Your task to perform on an android device: snooze an email in the gmail app Image 0: 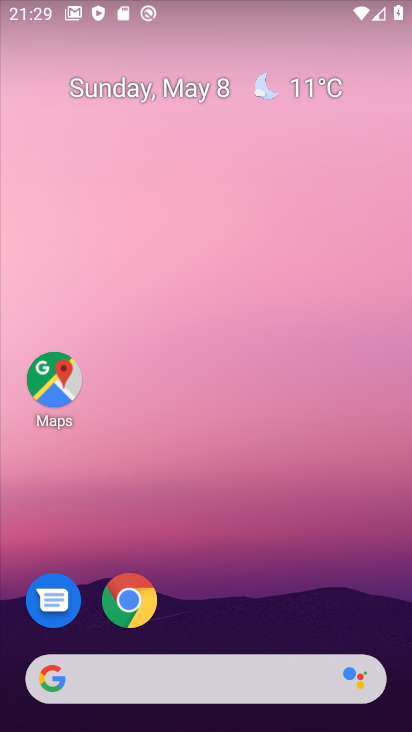
Step 0: drag from (172, 614) to (169, 203)
Your task to perform on an android device: snooze an email in the gmail app Image 1: 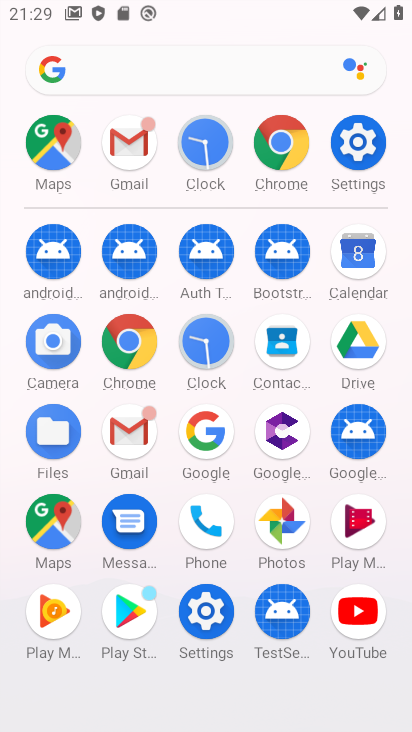
Step 1: click (128, 134)
Your task to perform on an android device: snooze an email in the gmail app Image 2: 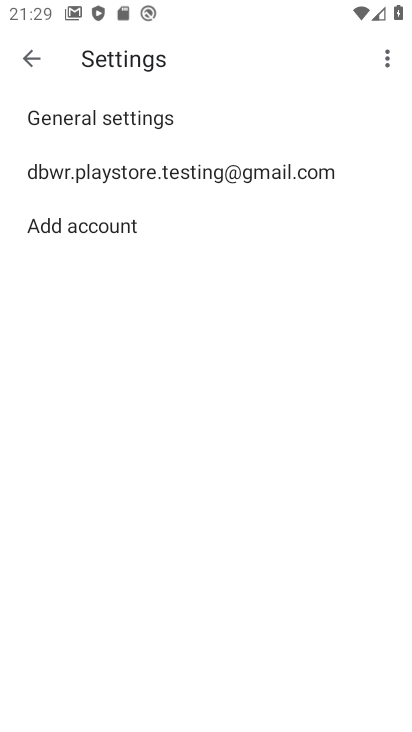
Step 2: click (41, 67)
Your task to perform on an android device: snooze an email in the gmail app Image 3: 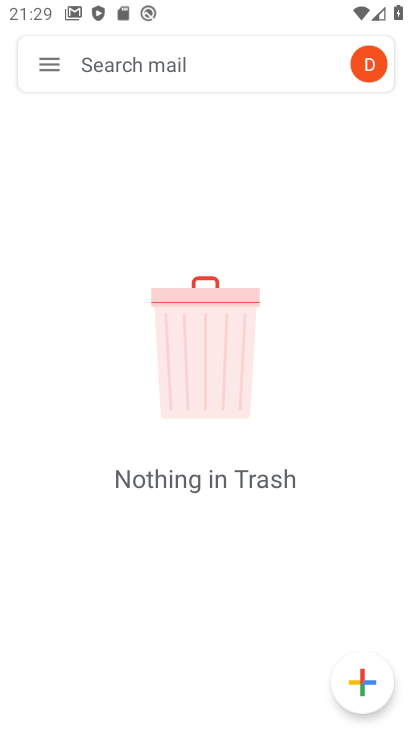
Step 3: click (41, 67)
Your task to perform on an android device: snooze an email in the gmail app Image 4: 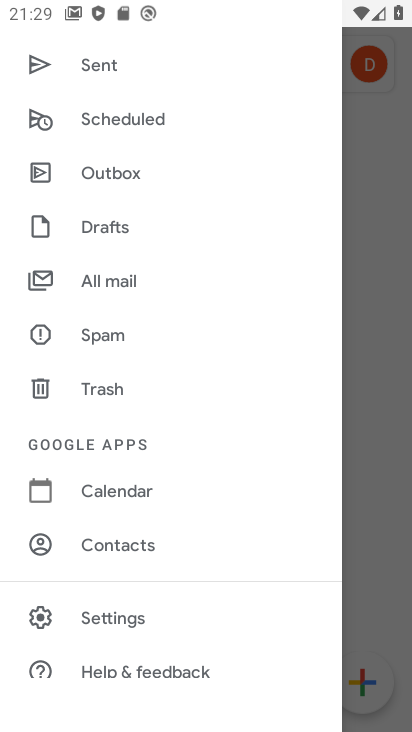
Step 4: click (144, 288)
Your task to perform on an android device: snooze an email in the gmail app Image 5: 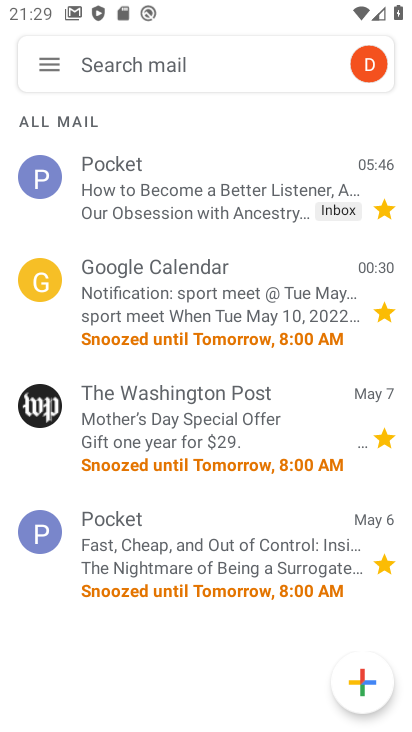
Step 5: click (36, 185)
Your task to perform on an android device: snooze an email in the gmail app Image 6: 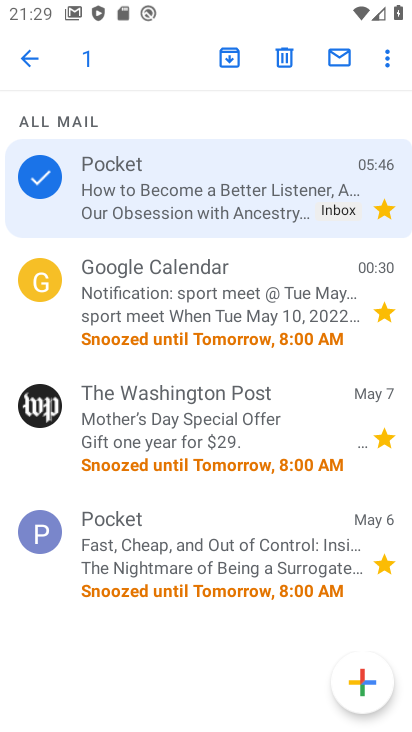
Step 6: click (377, 56)
Your task to perform on an android device: snooze an email in the gmail app Image 7: 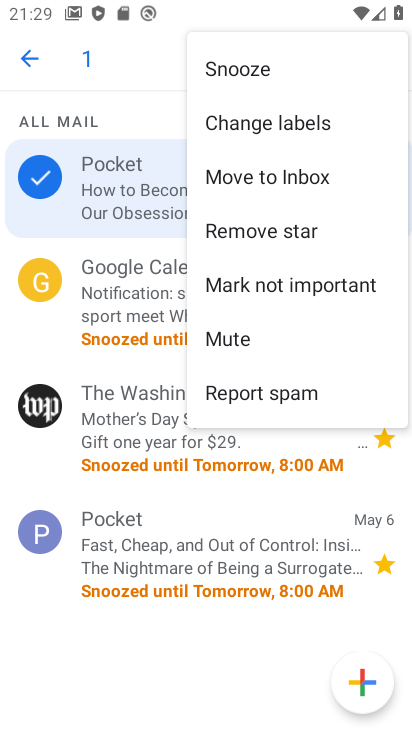
Step 7: click (250, 71)
Your task to perform on an android device: snooze an email in the gmail app Image 8: 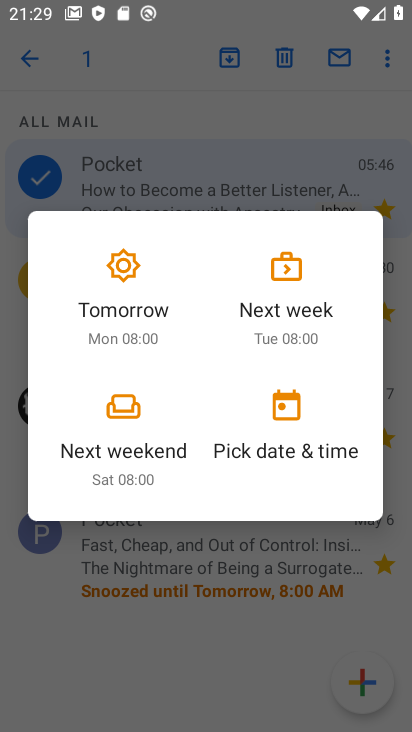
Step 8: click (288, 321)
Your task to perform on an android device: snooze an email in the gmail app Image 9: 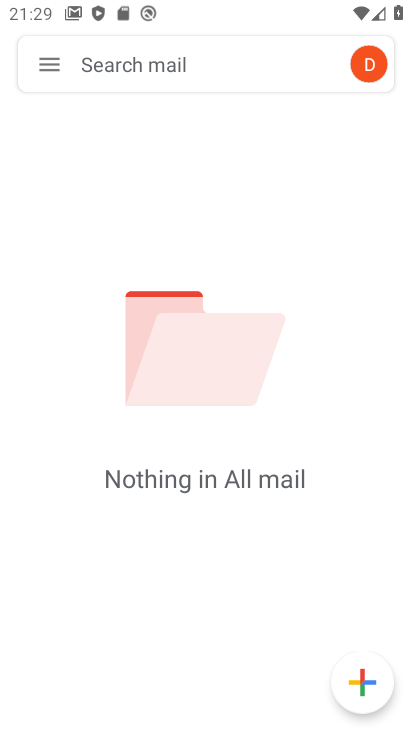
Step 9: task complete